Your task to perform on an android device: Do I have any events today? Image 0: 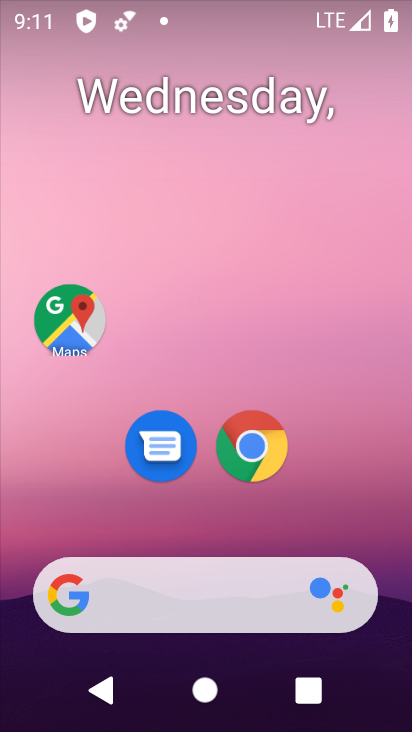
Step 0: press home button
Your task to perform on an android device: Do I have any events today? Image 1: 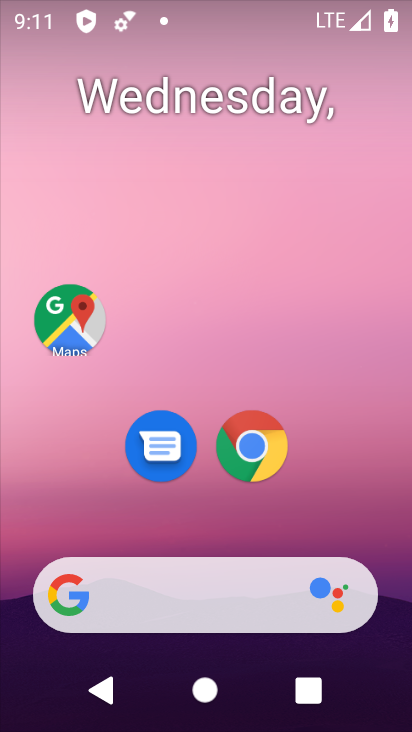
Step 1: drag from (187, 585) to (272, 194)
Your task to perform on an android device: Do I have any events today? Image 2: 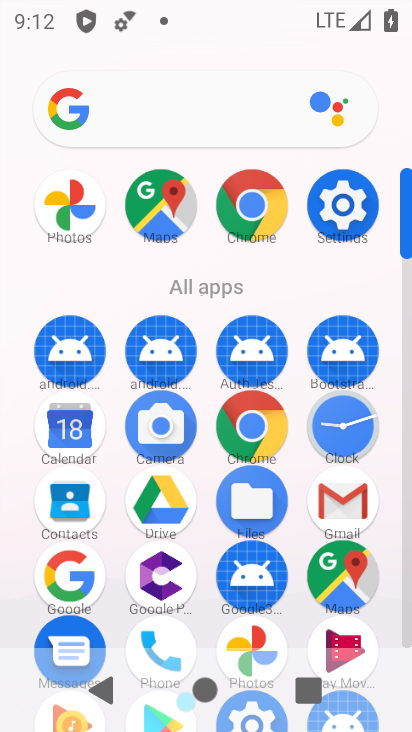
Step 2: click (73, 443)
Your task to perform on an android device: Do I have any events today? Image 3: 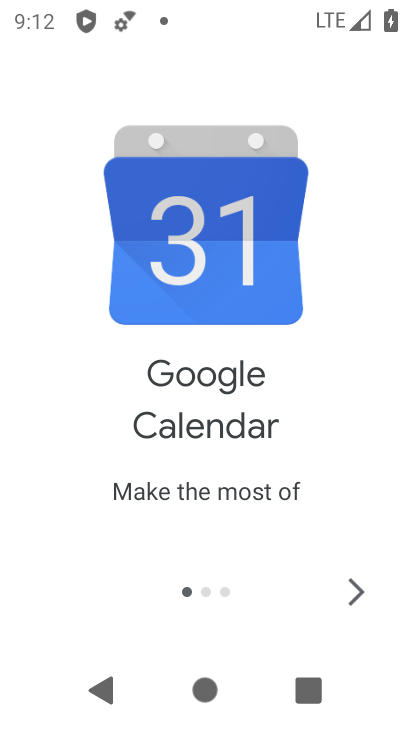
Step 3: click (351, 593)
Your task to perform on an android device: Do I have any events today? Image 4: 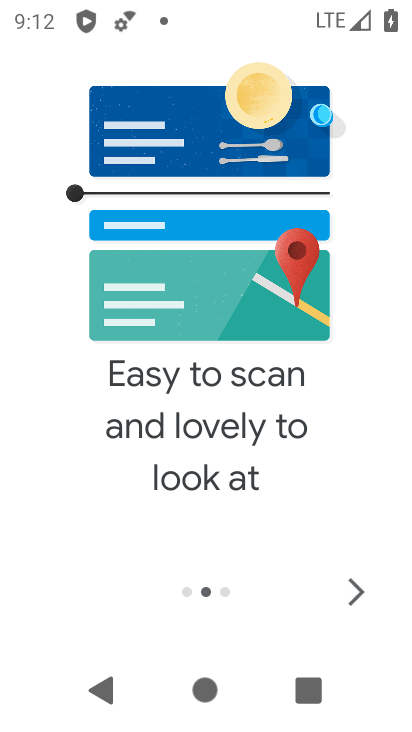
Step 4: click (351, 594)
Your task to perform on an android device: Do I have any events today? Image 5: 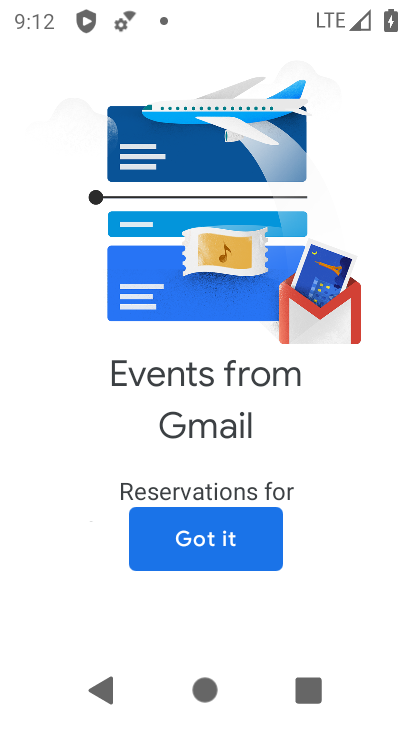
Step 5: click (209, 521)
Your task to perform on an android device: Do I have any events today? Image 6: 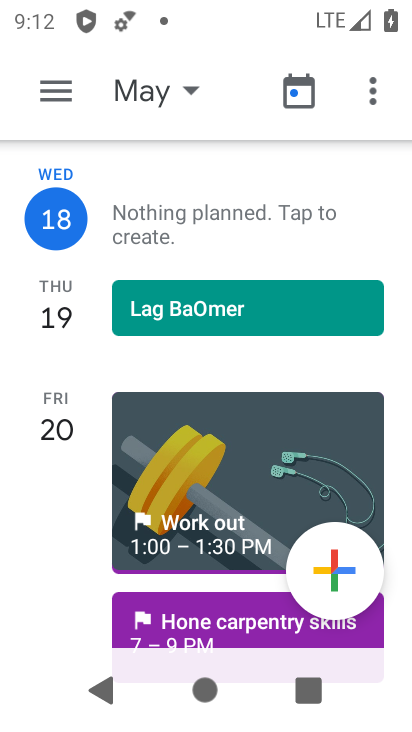
Step 6: click (120, 89)
Your task to perform on an android device: Do I have any events today? Image 7: 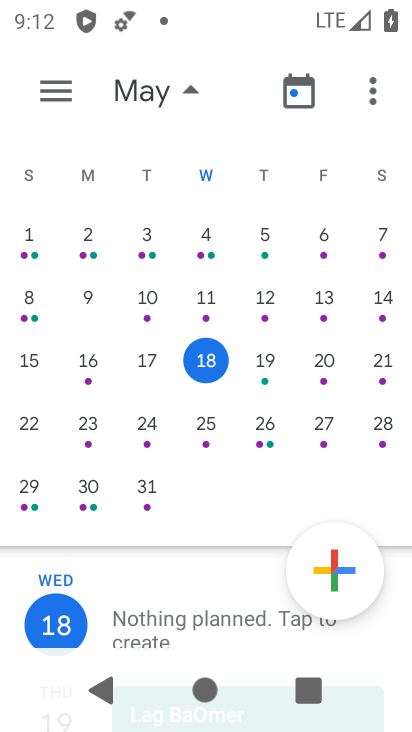
Step 7: click (205, 365)
Your task to perform on an android device: Do I have any events today? Image 8: 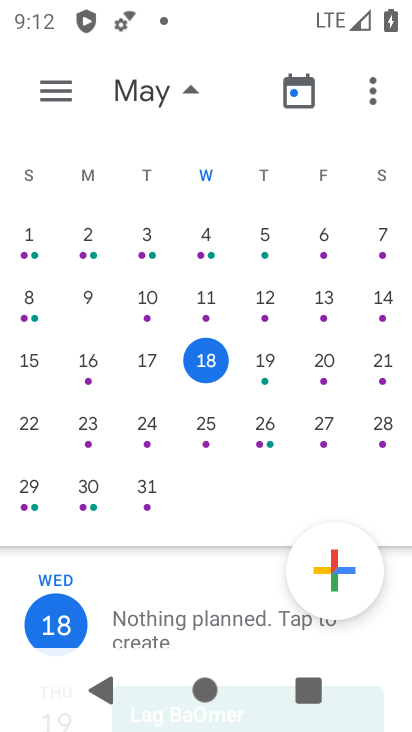
Step 8: click (62, 92)
Your task to perform on an android device: Do I have any events today? Image 9: 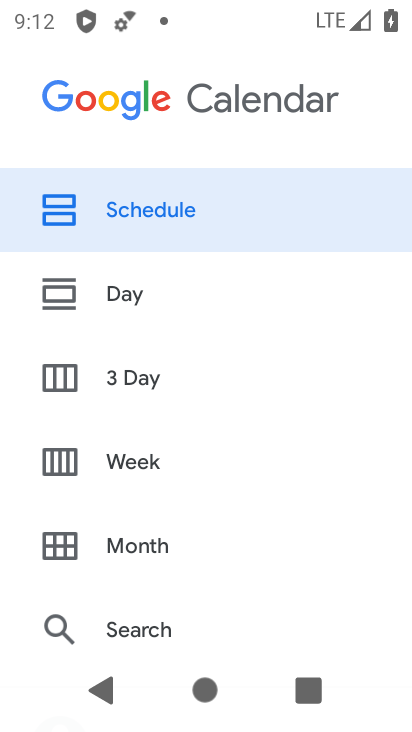
Step 9: click (124, 208)
Your task to perform on an android device: Do I have any events today? Image 10: 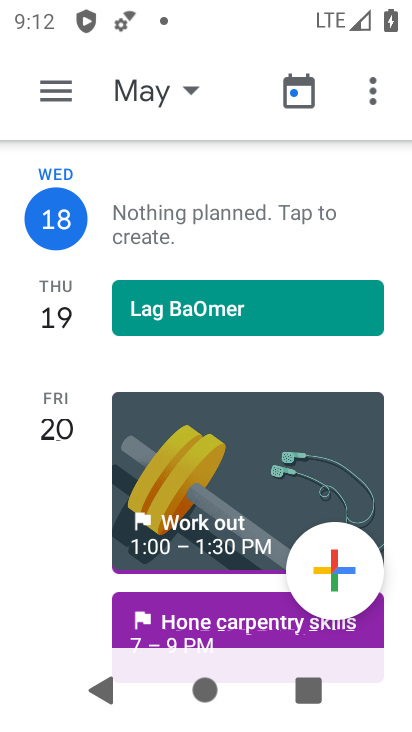
Step 10: task complete